Your task to perform on an android device: Search for hotels in Chicago Image 0: 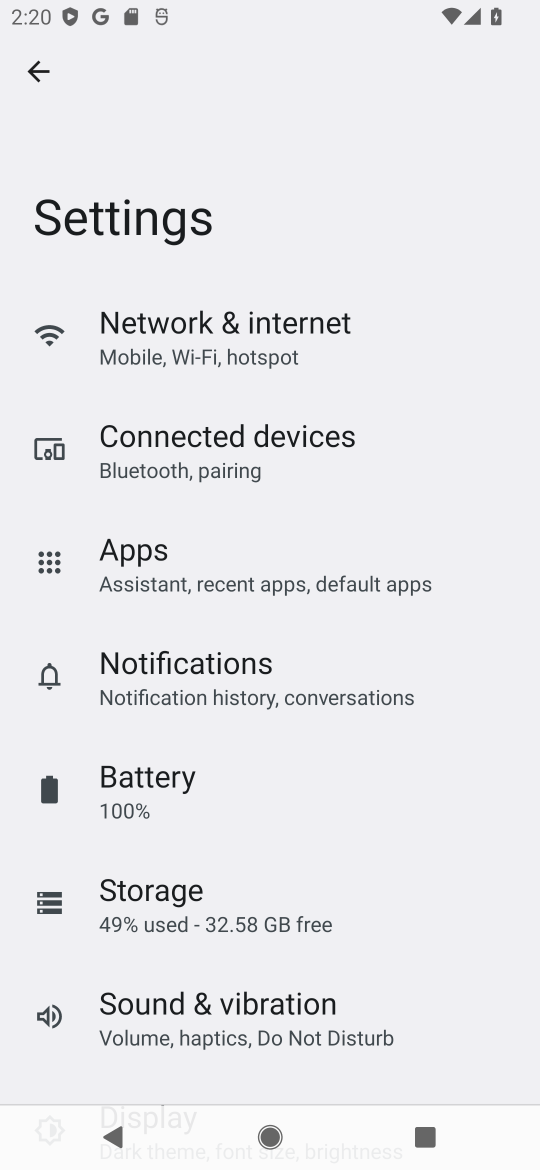
Step 0: press home button
Your task to perform on an android device: Search for hotels in Chicago Image 1: 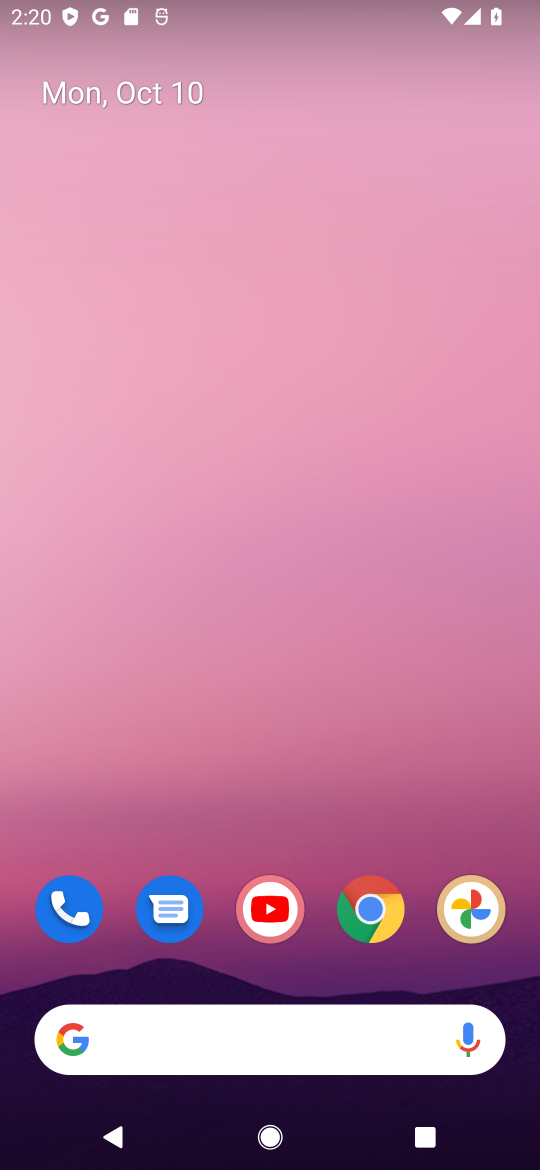
Step 1: click (366, 911)
Your task to perform on an android device: Search for hotels in Chicago Image 2: 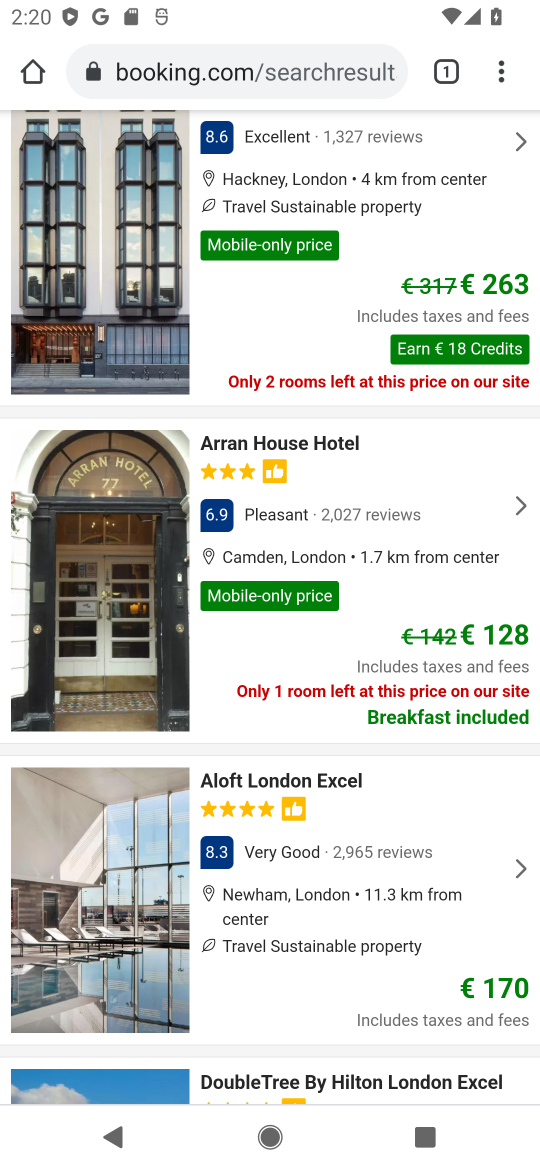
Step 2: click (206, 52)
Your task to perform on an android device: Search for hotels in Chicago Image 3: 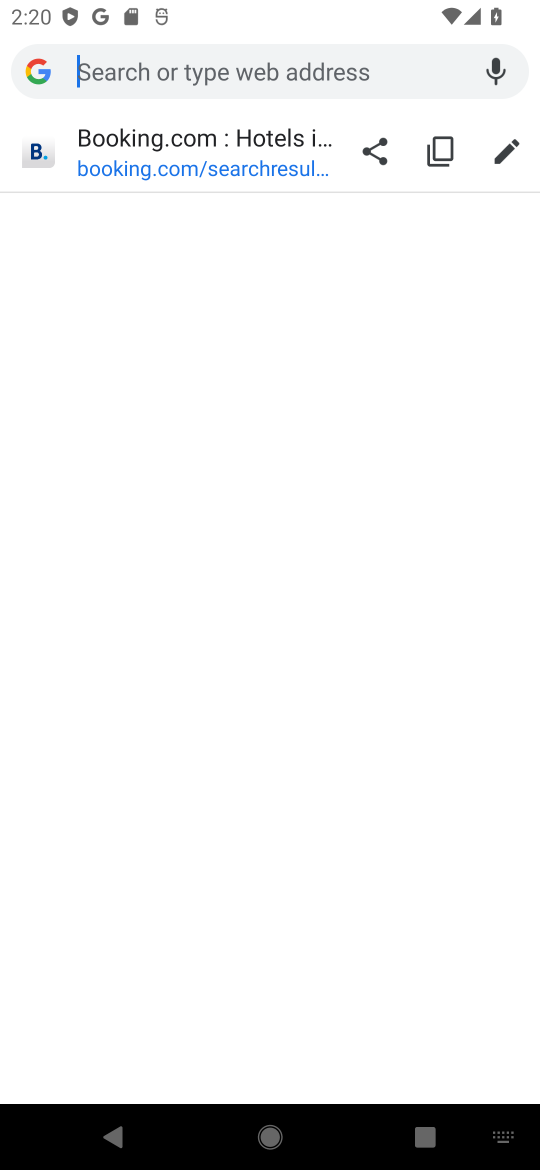
Step 3: type "hotels in Chicago"
Your task to perform on an android device: Search for hotels in Chicago Image 4: 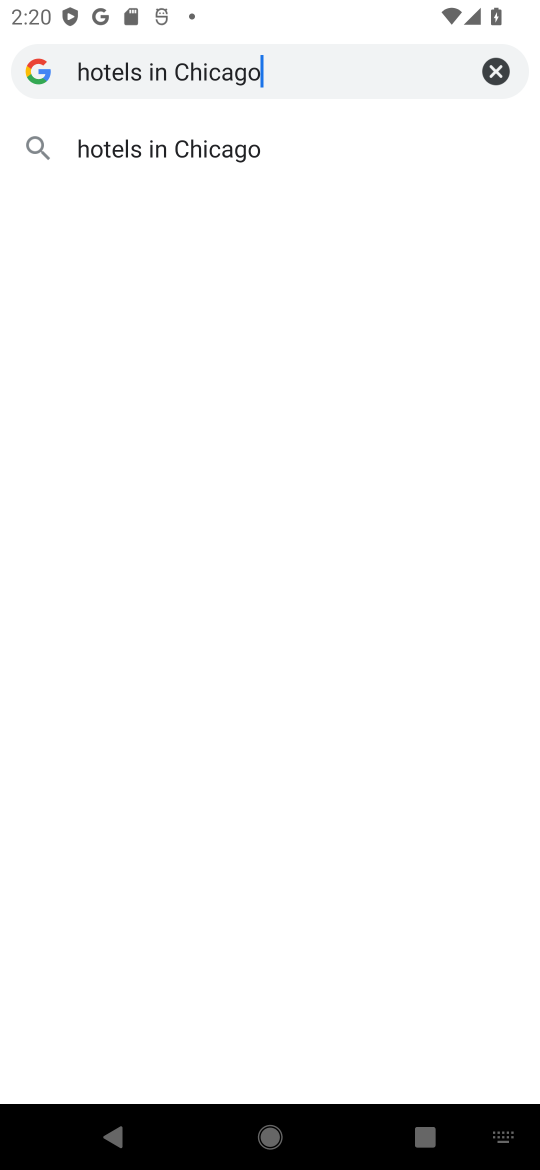
Step 4: click (134, 160)
Your task to perform on an android device: Search for hotels in Chicago Image 5: 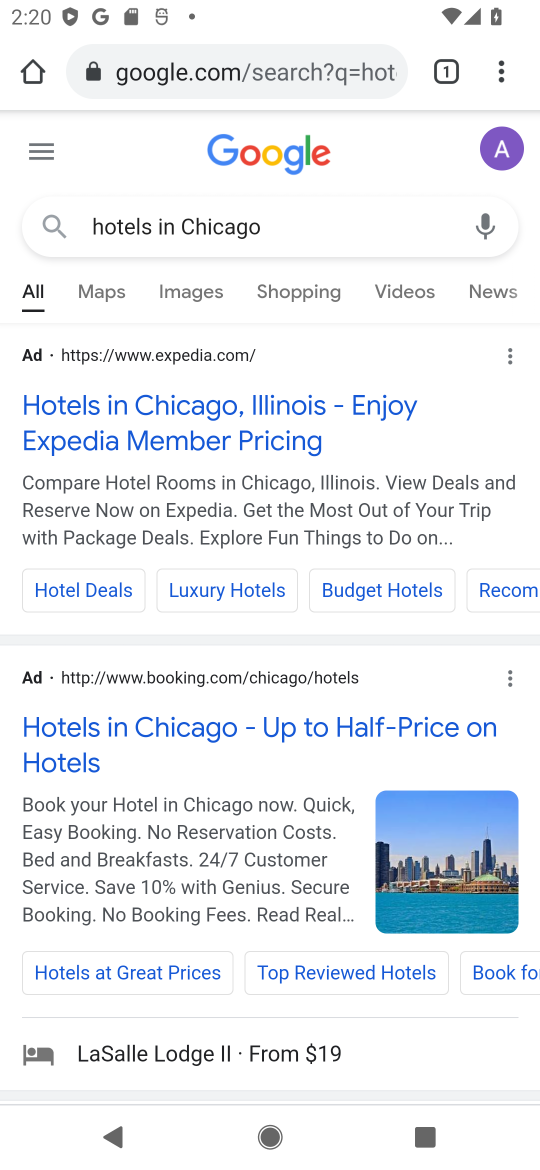
Step 5: click (123, 430)
Your task to perform on an android device: Search for hotels in Chicago Image 6: 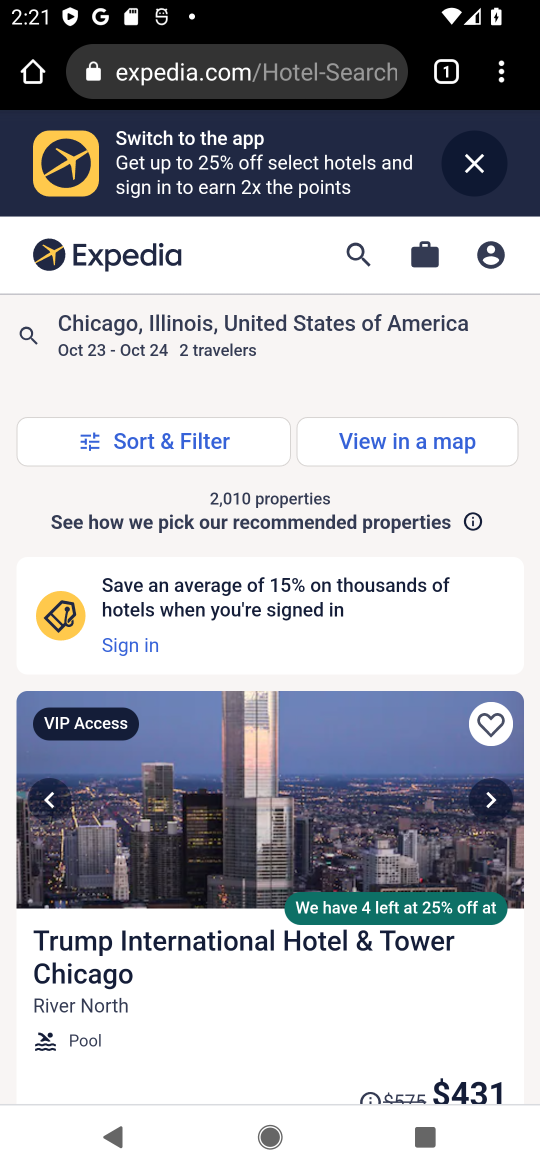
Step 6: task complete